Your task to perform on an android device: Go to Reddit.com Image 0: 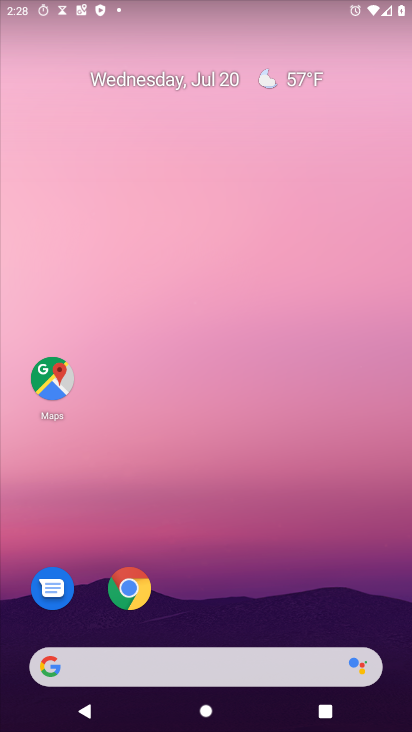
Step 0: drag from (284, 684) to (253, 106)
Your task to perform on an android device: Go to Reddit.com Image 1: 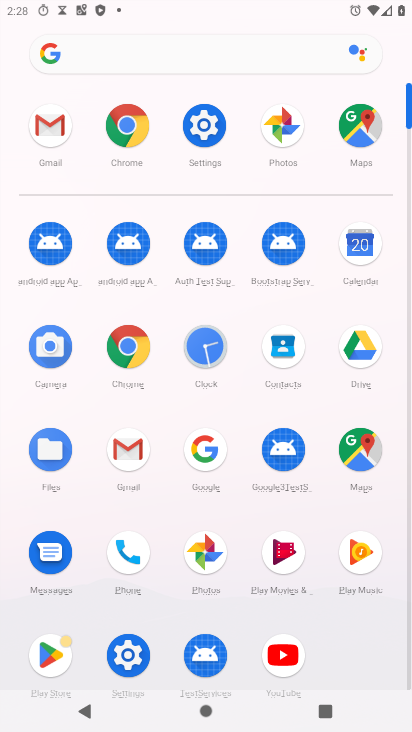
Step 1: click (127, 348)
Your task to perform on an android device: Go to Reddit.com Image 2: 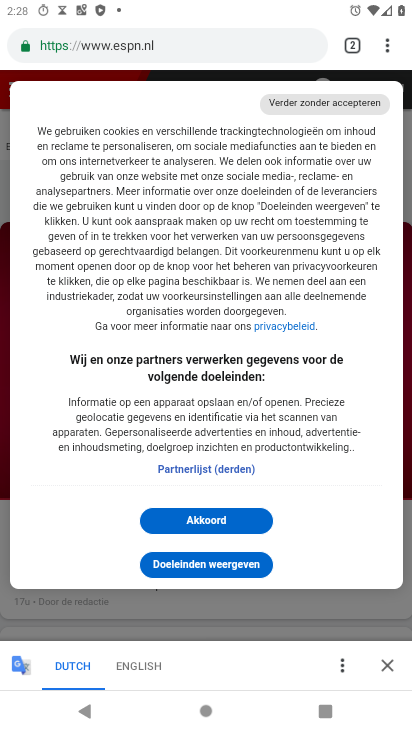
Step 2: click (221, 48)
Your task to perform on an android device: Go to Reddit.com Image 3: 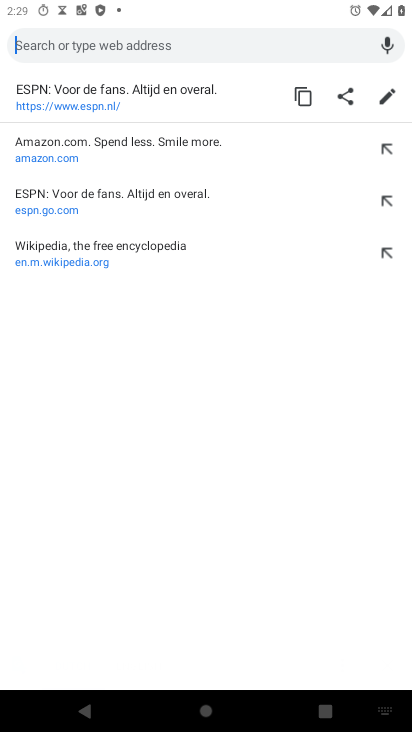
Step 3: type "reddit.com"
Your task to perform on an android device: Go to Reddit.com Image 4: 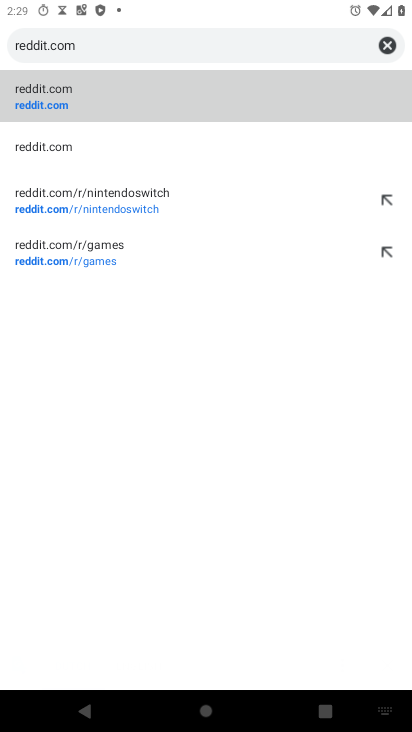
Step 4: click (109, 112)
Your task to perform on an android device: Go to Reddit.com Image 5: 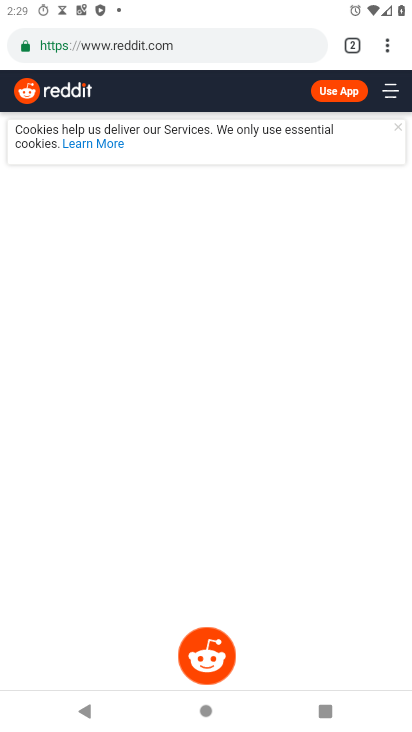
Step 5: task complete